Your task to perform on an android device: Open Chrome and go to settings Image 0: 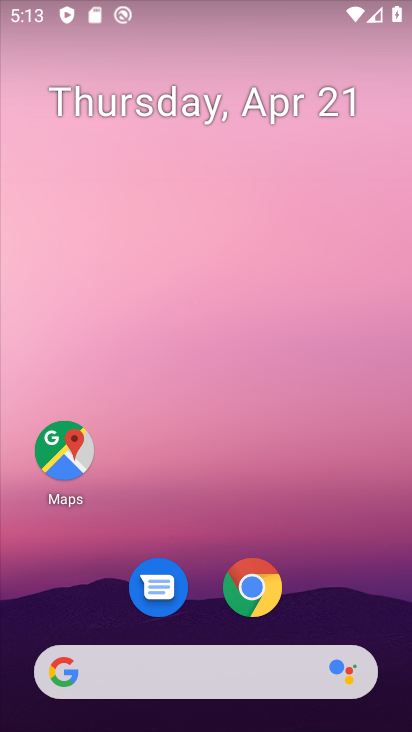
Step 0: click (251, 590)
Your task to perform on an android device: Open Chrome and go to settings Image 1: 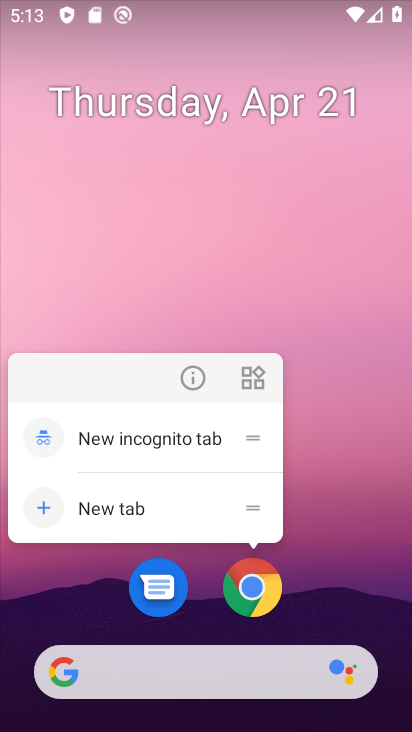
Step 1: click (251, 582)
Your task to perform on an android device: Open Chrome and go to settings Image 2: 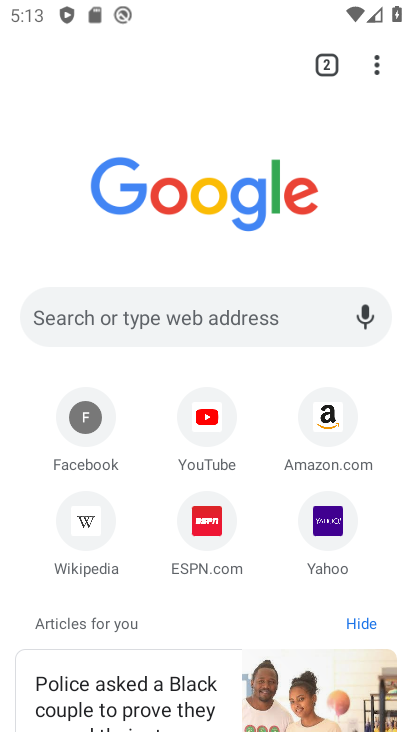
Step 2: click (369, 58)
Your task to perform on an android device: Open Chrome and go to settings Image 3: 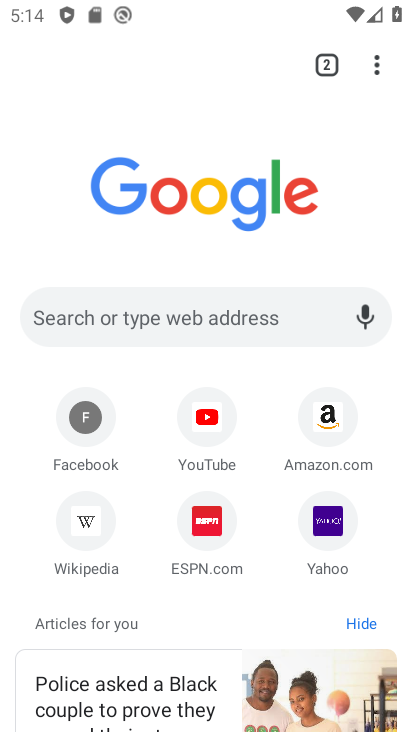
Step 3: click (370, 62)
Your task to perform on an android device: Open Chrome and go to settings Image 4: 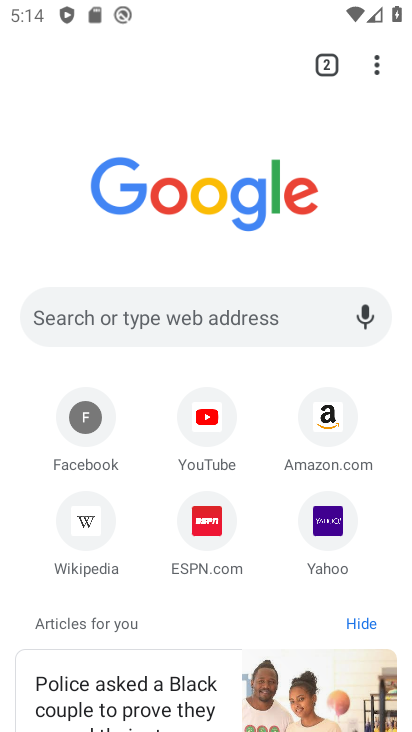
Step 4: click (374, 67)
Your task to perform on an android device: Open Chrome and go to settings Image 5: 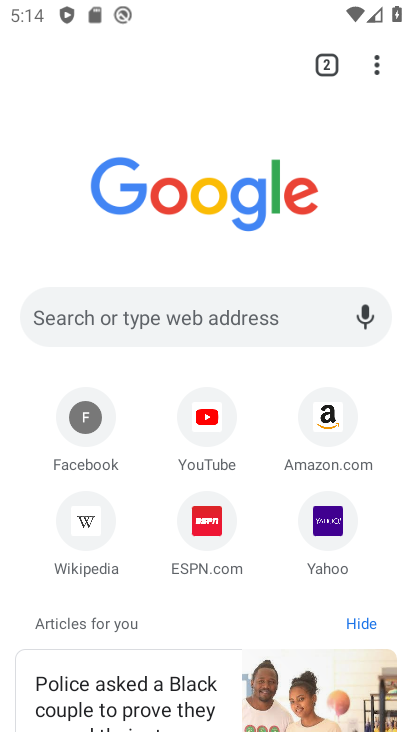
Step 5: click (376, 60)
Your task to perform on an android device: Open Chrome and go to settings Image 6: 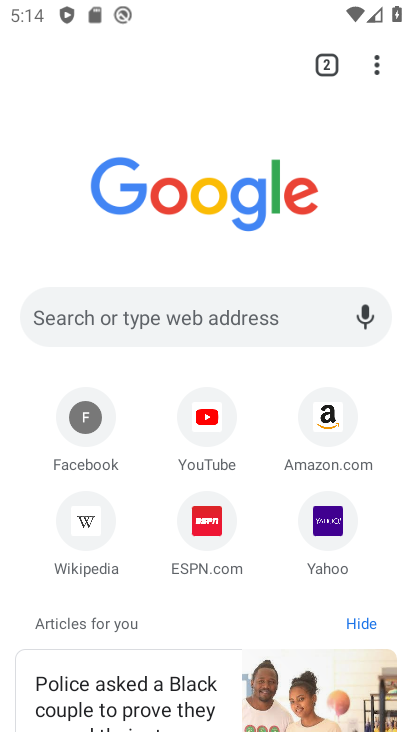
Step 6: click (376, 60)
Your task to perform on an android device: Open Chrome and go to settings Image 7: 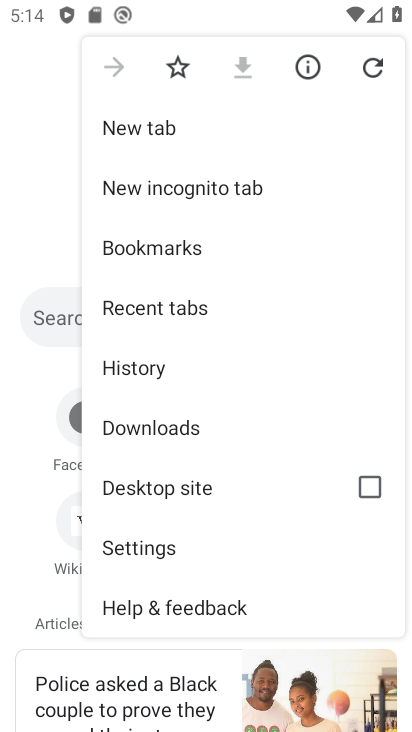
Step 7: click (178, 552)
Your task to perform on an android device: Open Chrome and go to settings Image 8: 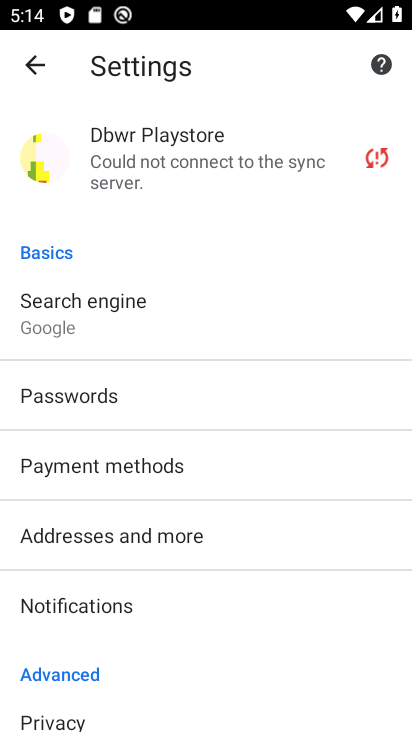
Step 8: task complete